Your task to perform on an android device: Open Google Chrome Image 0: 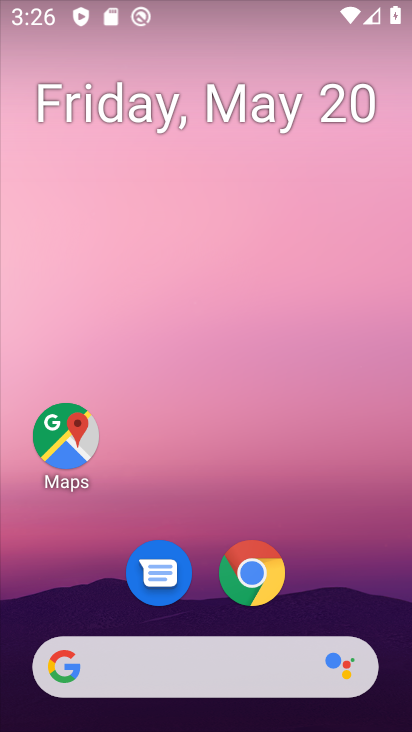
Step 0: click (254, 571)
Your task to perform on an android device: Open Google Chrome Image 1: 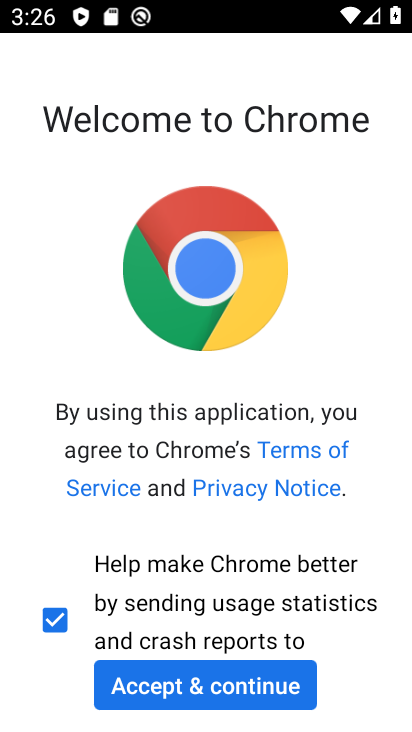
Step 1: click (195, 694)
Your task to perform on an android device: Open Google Chrome Image 2: 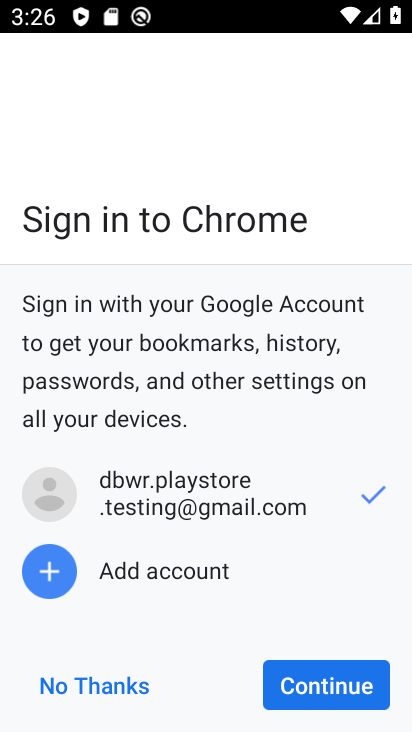
Step 2: click (334, 688)
Your task to perform on an android device: Open Google Chrome Image 3: 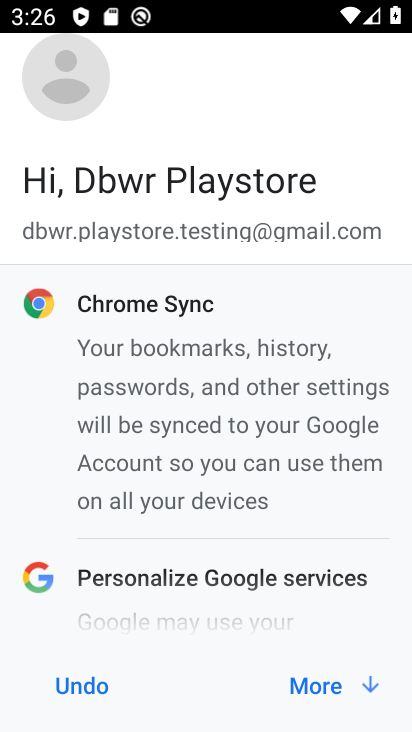
Step 3: click (334, 688)
Your task to perform on an android device: Open Google Chrome Image 4: 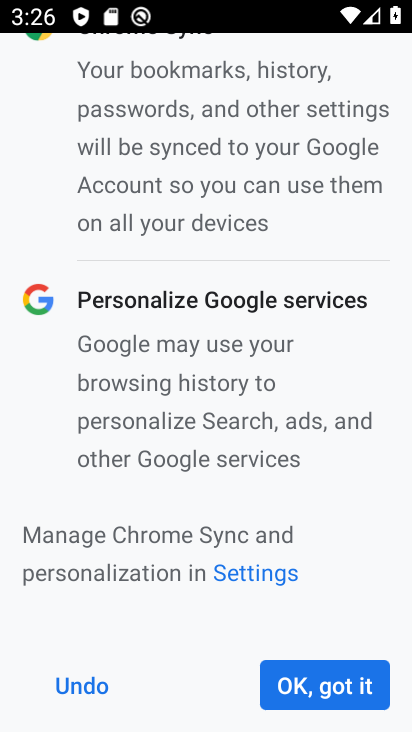
Step 4: click (315, 679)
Your task to perform on an android device: Open Google Chrome Image 5: 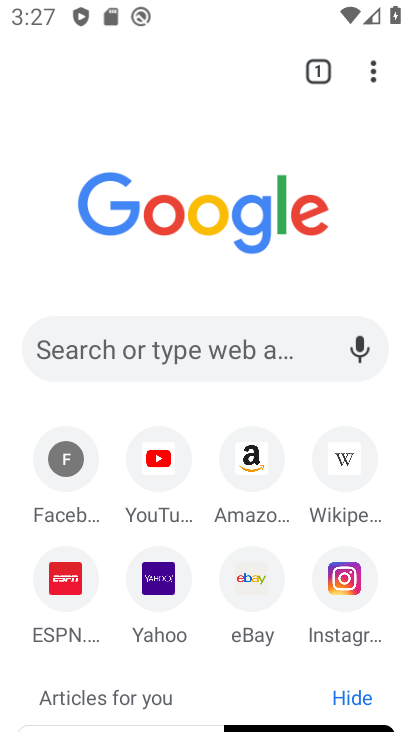
Step 5: task complete